Your task to perform on an android device: turn on data saver in the chrome app Image 0: 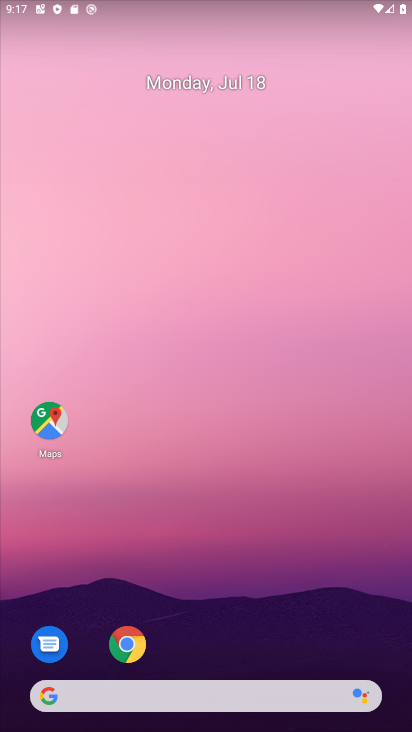
Step 0: drag from (220, 620) to (169, 70)
Your task to perform on an android device: turn on data saver in the chrome app Image 1: 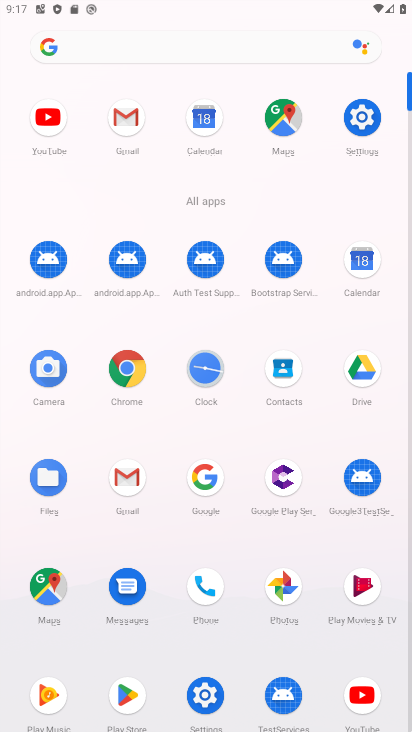
Step 1: click (129, 384)
Your task to perform on an android device: turn on data saver in the chrome app Image 2: 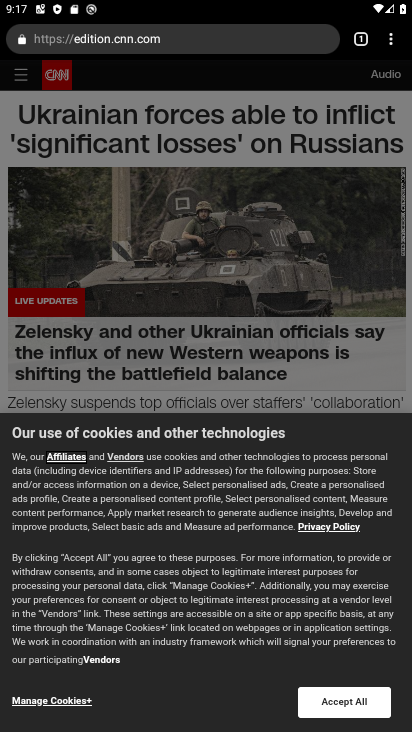
Step 2: drag from (385, 45) to (262, 433)
Your task to perform on an android device: turn on data saver in the chrome app Image 3: 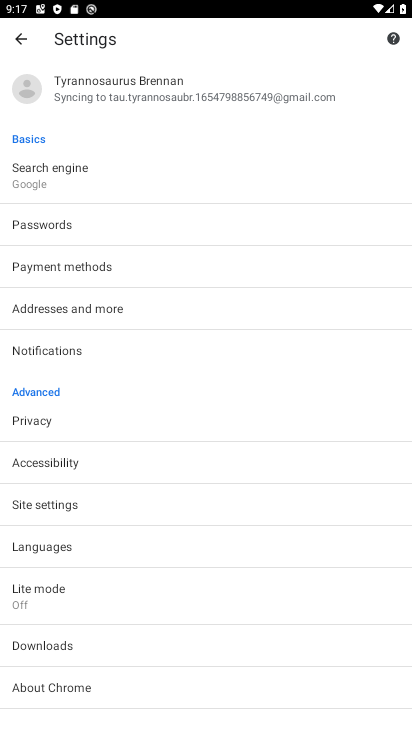
Step 3: click (17, 569)
Your task to perform on an android device: turn on data saver in the chrome app Image 4: 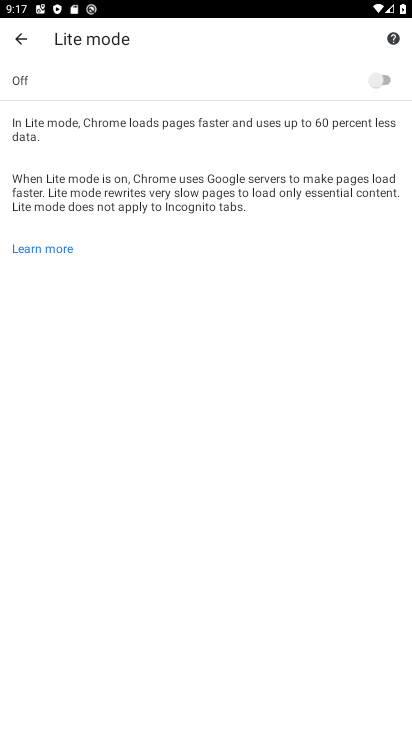
Step 4: click (370, 86)
Your task to perform on an android device: turn on data saver in the chrome app Image 5: 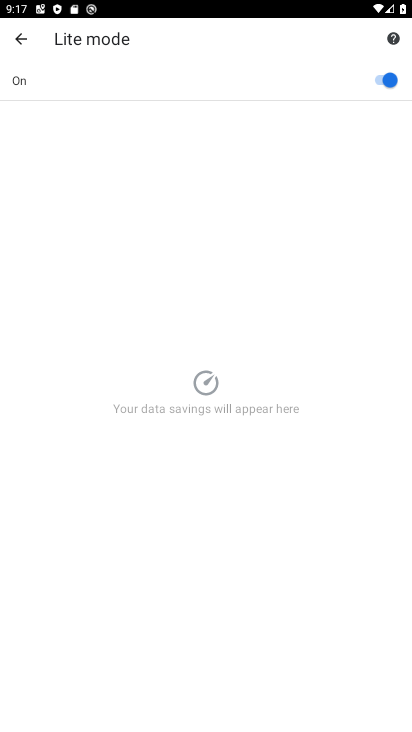
Step 5: task complete